Your task to perform on an android device: set default search engine in the chrome app Image 0: 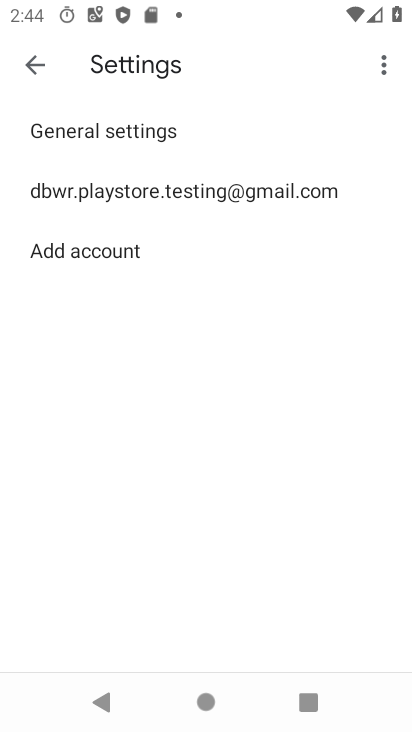
Step 0: press home button
Your task to perform on an android device: set default search engine in the chrome app Image 1: 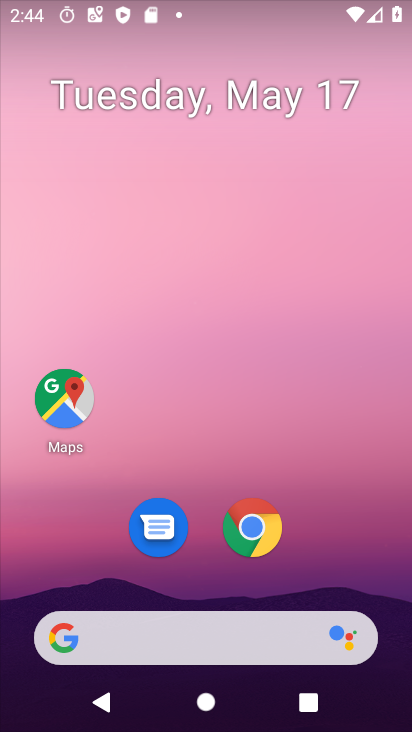
Step 1: drag from (239, 655) to (194, 191)
Your task to perform on an android device: set default search engine in the chrome app Image 2: 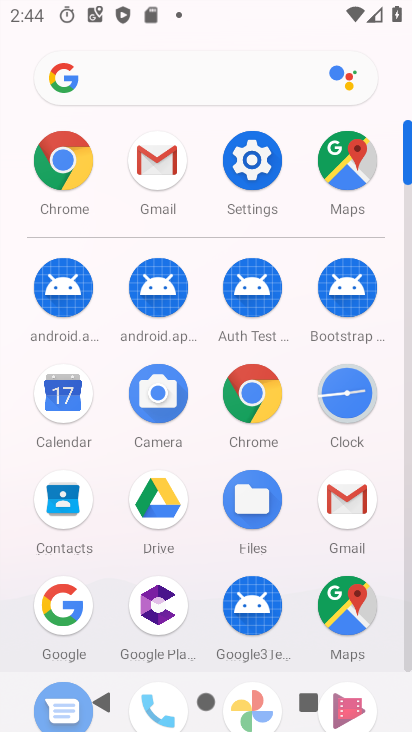
Step 2: click (60, 183)
Your task to perform on an android device: set default search engine in the chrome app Image 3: 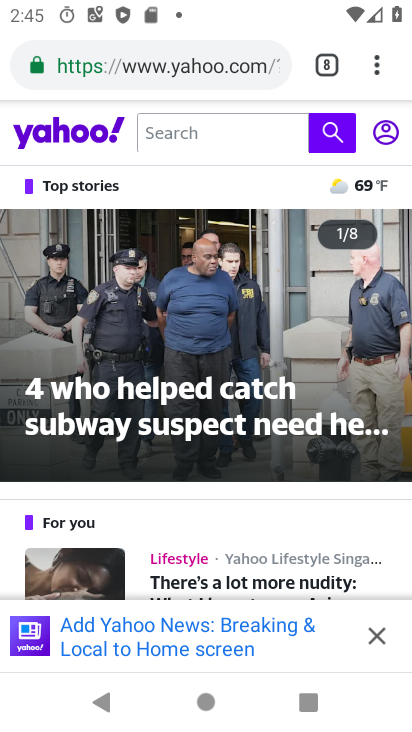
Step 3: click (361, 76)
Your task to perform on an android device: set default search engine in the chrome app Image 4: 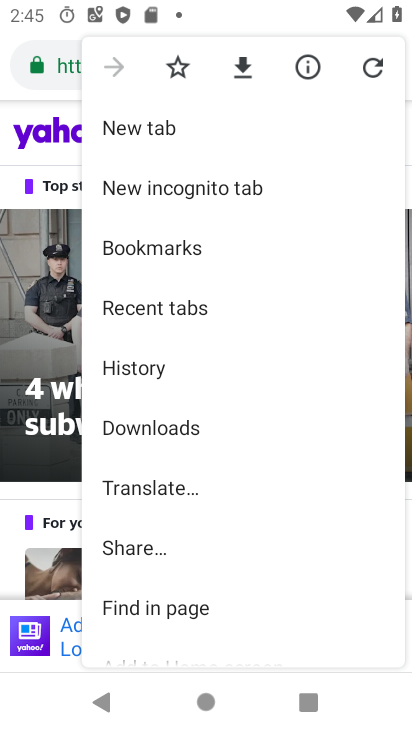
Step 4: drag from (170, 526) to (146, 325)
Your task to perform on an android device: set default search engine in the chrome app Image 5: 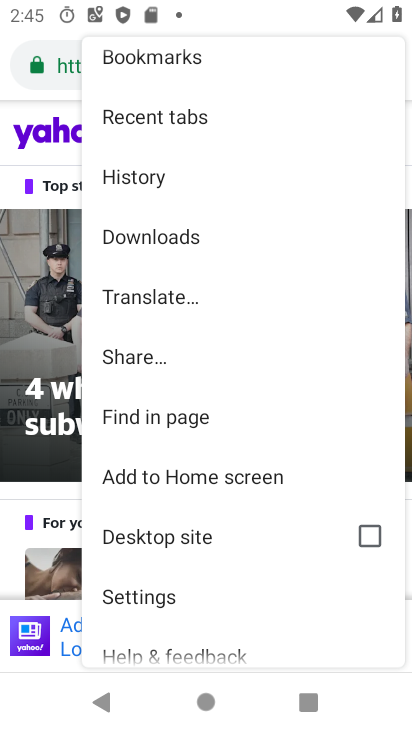
Step 5: click (173, 606)
Your task to perform on an android device: set default search engine in the chrome app Image 6: 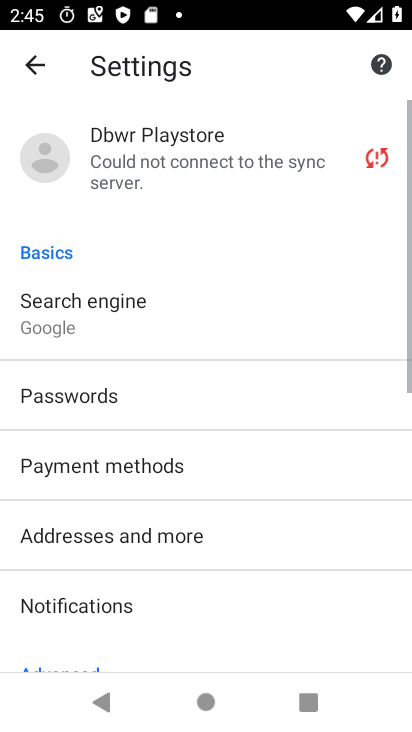
Step 6: click (104, 313)
Your task to perform on an android device: set default search engine in the chrome app Image 7: 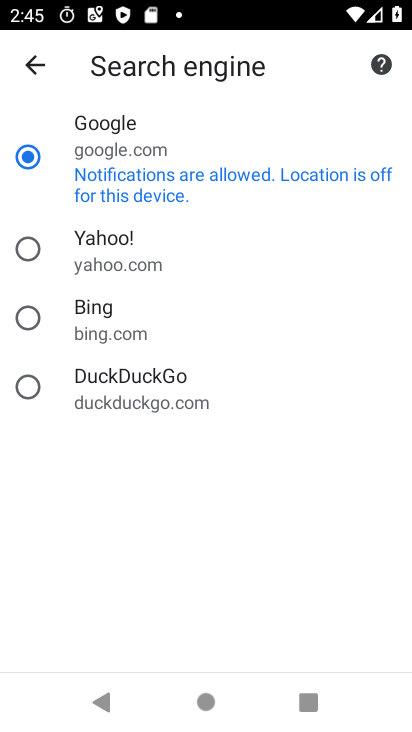
Step 7: press home button
Your task to perform on an android device: set default search engine in the chrome app Image 8: 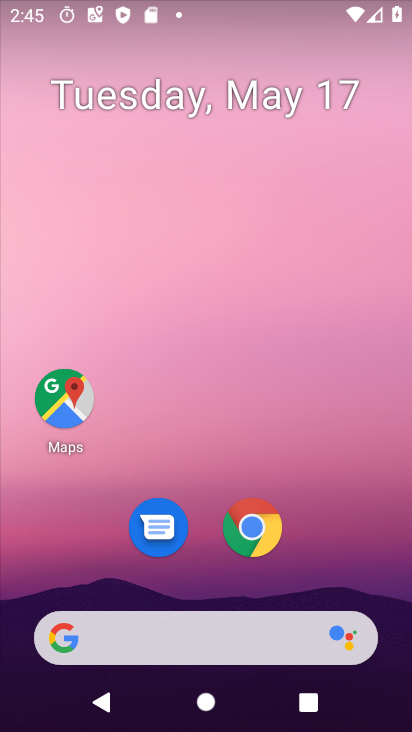
Step 8: drag from (240, 660) to (239, 336)
Your task to perform on an android device: set default search engine in the chrome app Image 9: 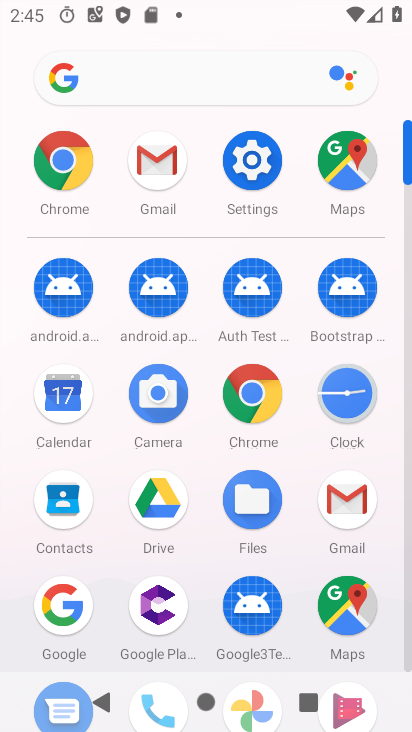
Step 9: click (79, 165)
Your task to perform on an android device: set default search engine in the chrome app Image 10: 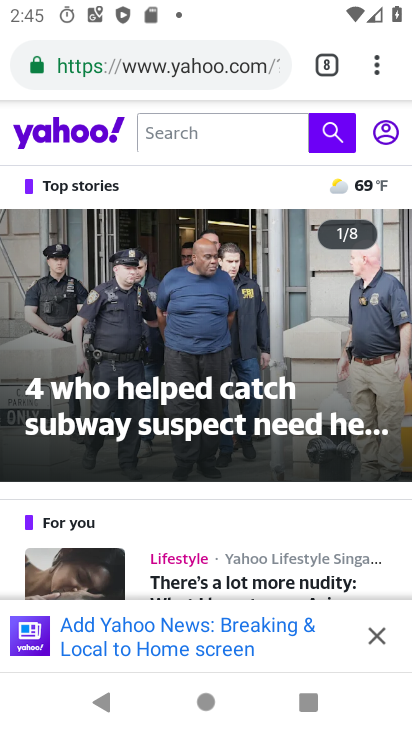
Step 10: task complete